Your task to perform on an android device: find snoozed emails in the gmail app Image 0: 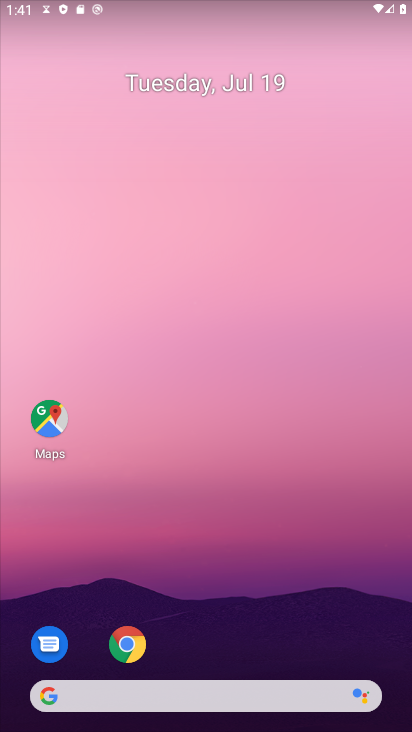
Step 0: drag from (255, 605) to (220, 511)
Your task to perform on an android device: find snoozed emails in the gmail app Image 1: 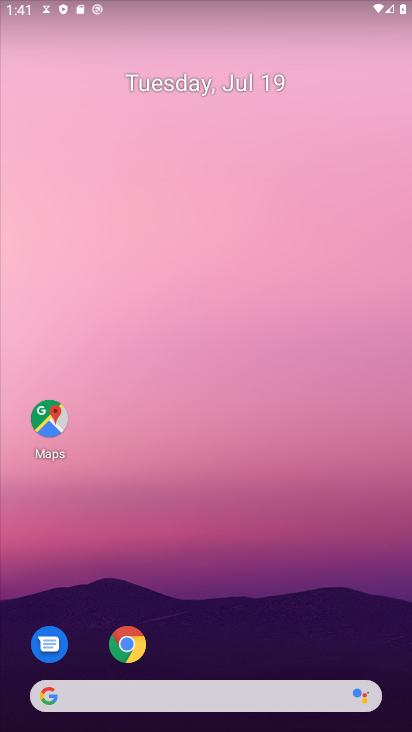
Step 1: drag from (242, 593) to (238, 246)
Your task to perform on an android device: find snoozed emails in the gmail app Image 2: 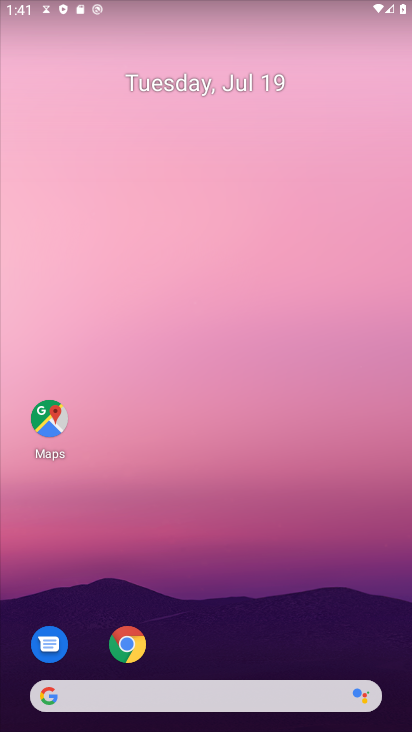
Step 2: drag from (276, 550) to (279, 239)
Your task to perform on an android device: find snoozed emails in the gmail app Image 3: 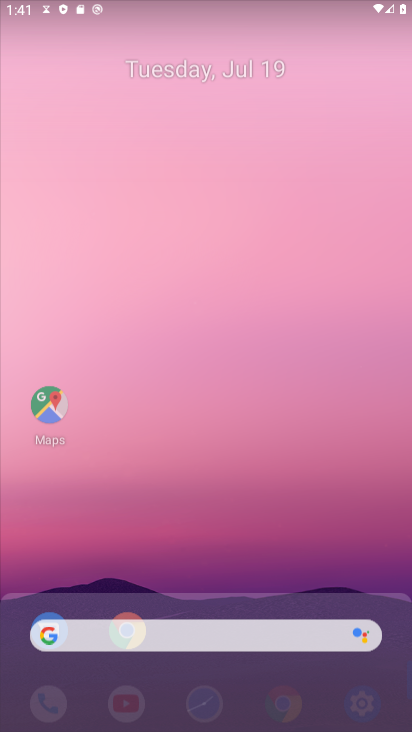
Step 3: drag from (250, 547) to (205, 93)
Your task to perform on an android device: find snoozed emails in the gmail app Image 4: 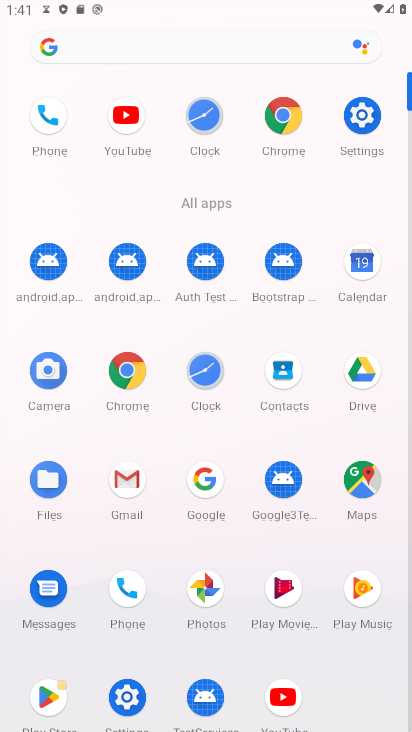
Step 4: drag from (227, 603) to (216, 310)
Your task to perform on an android device: find snoozed emails in the gmail app Image 5: 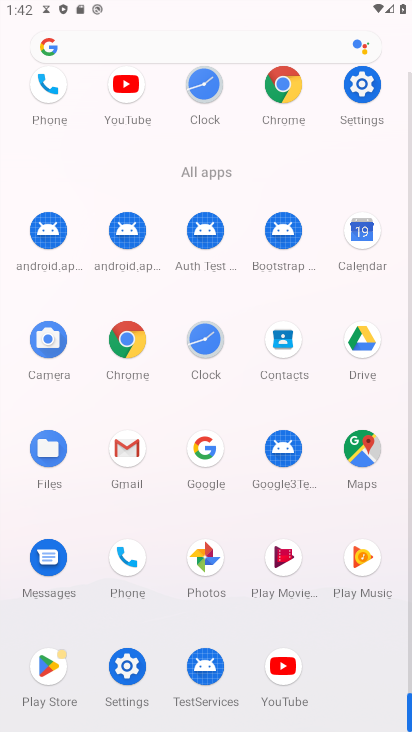
Step 5: click (116, 430)
Your task to perform on an android device: find snoozed emails in the gmail app Image 6: 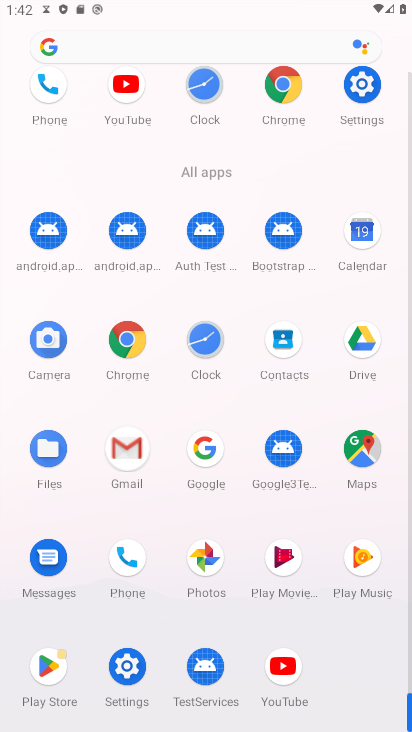
Step 6: click (125, 438)
Your task to perform on an android device: find snoozed emails in the gmail app Image 7: 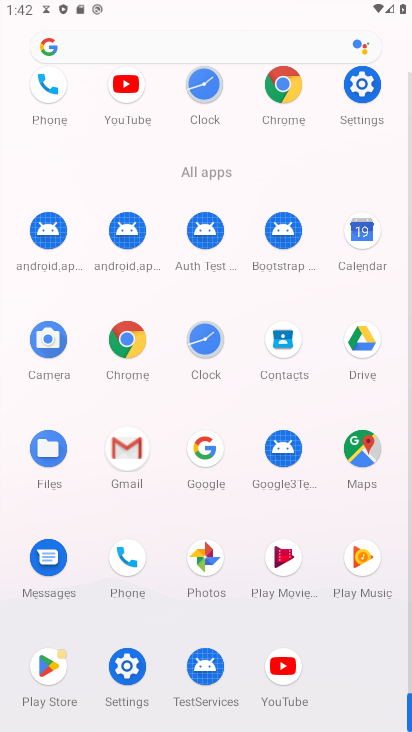
Step 7: click (125, 437)
Your task to perform on an android device: find snoozed emails in the gmail app Image 8: 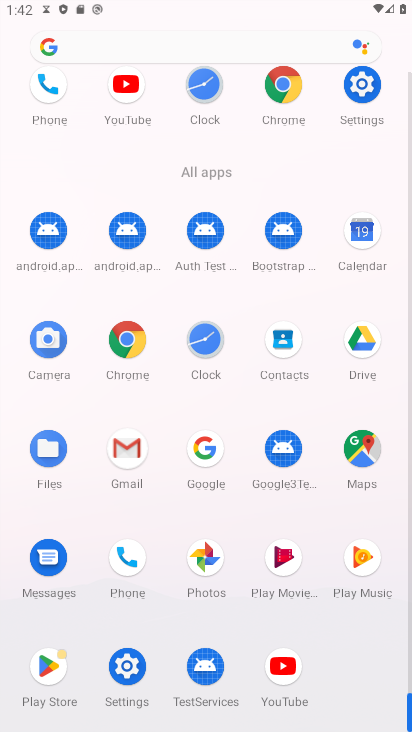
Step 8: click (126, 440)
Your task to perform on an android device: find snoozed emails in the gmail app Image 9: 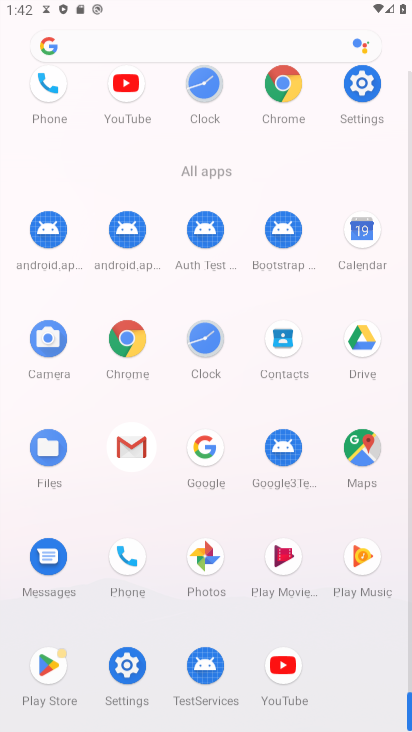
Step 9: click (128, 440)
Your task to perform on an android device: find snoozed emails in the gmail app Image 10: 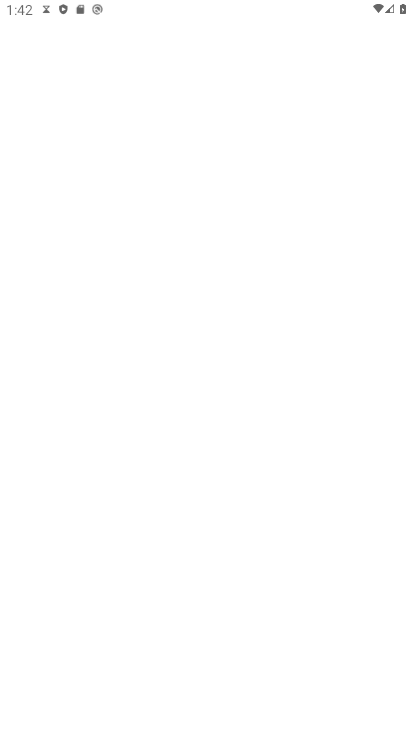
Step 10: click (132, 442)
Your task to perform on an android device: find snoozed emails in the gmail app Image 11: 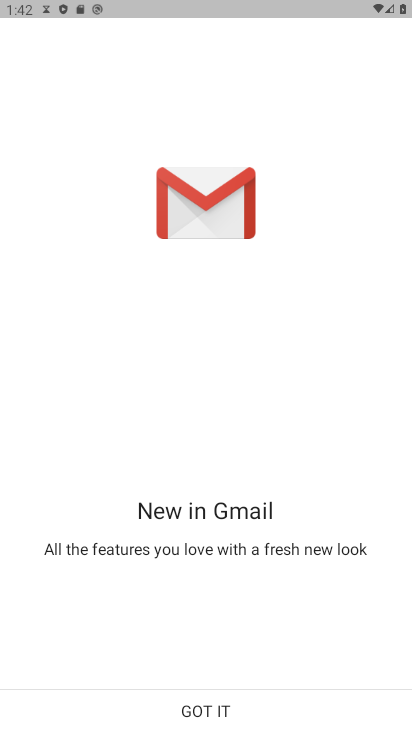
Step 11: click (130, 442)
Your task to perform on an android device: find snoozed emails in the gmail app Image 12: 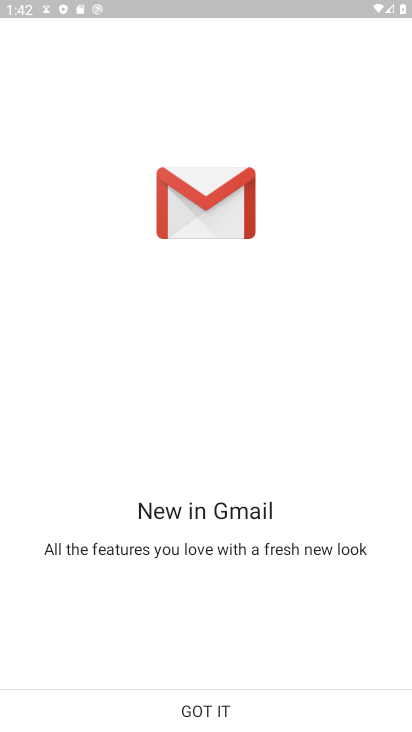
Step 12: click (215, 706)
Your task to perform on an android device: find snoozed emails in the gmail app Image 13: 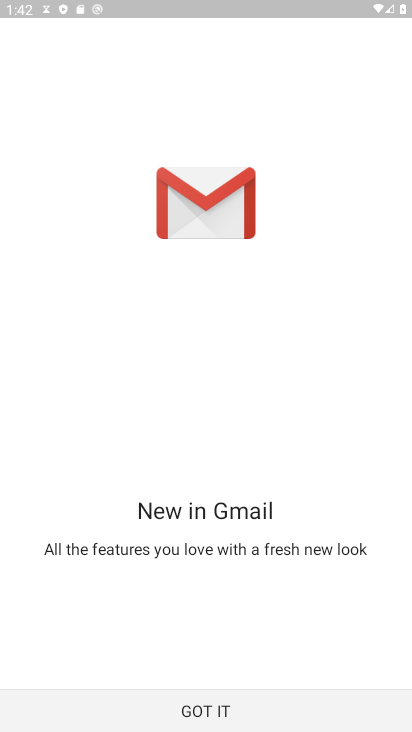
Step 13: click (215, 710)
Your task to perform on an android device: find snoozed emails in the gmail app Image 14: 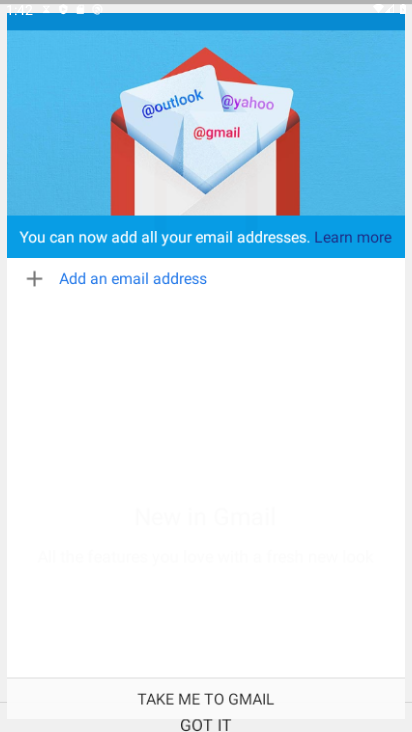
Step 14: click (215, 710)
Your task to perform on an android device: find snoozed emails in the gmail app Image 15: 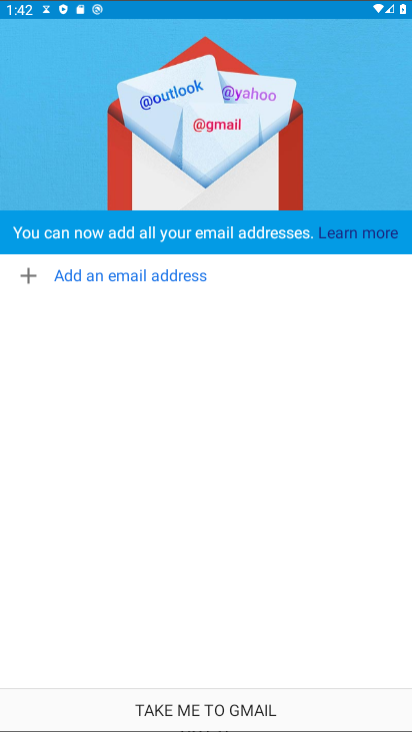
Step 15: click (215, 712)
Your task to perform on an android device: find snoozed emails in the gmail app Image 16: 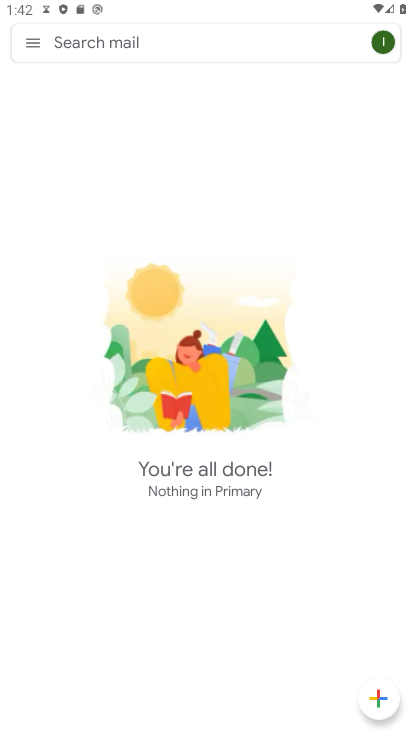
Step 16: click (25, 32)
Your task to perform on an android device: find snoozed emails in the gmail app Image 17: 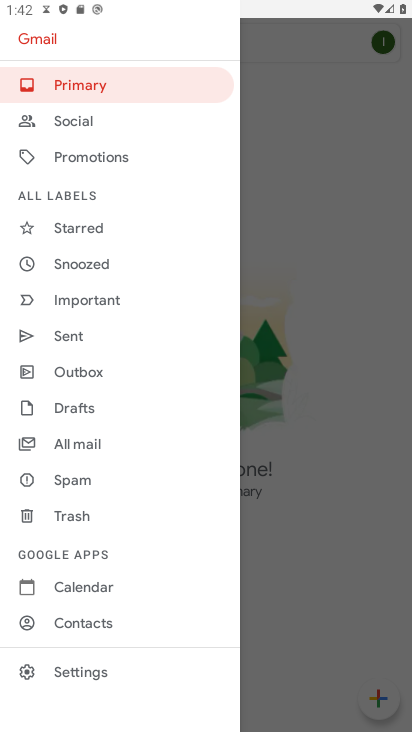
Step 17: click (75, 251)
Your task to perform on an android device: find snoozed emails in the gmail app Image 18: 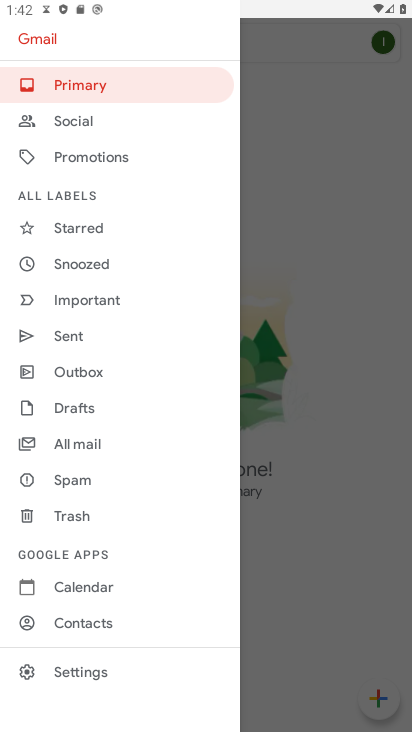
Step 18: click (78, 265)
Your task to perform on an android device: find snoozed emails in the gmail app Image 19: 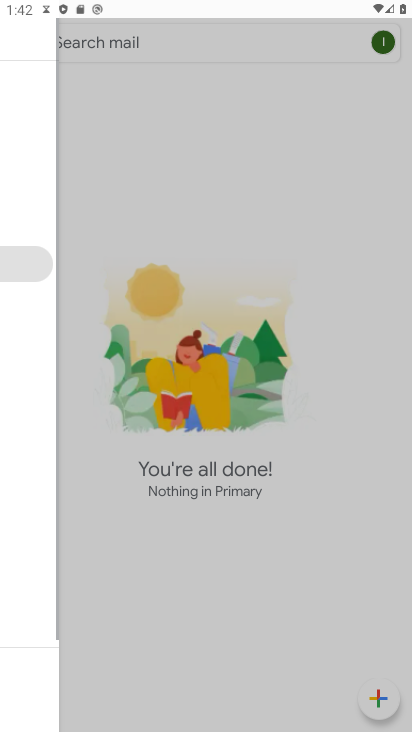
Step 19: click (80, 262)
Your task to perform on an android device: find snoozed emails in the gmail app Image 20: 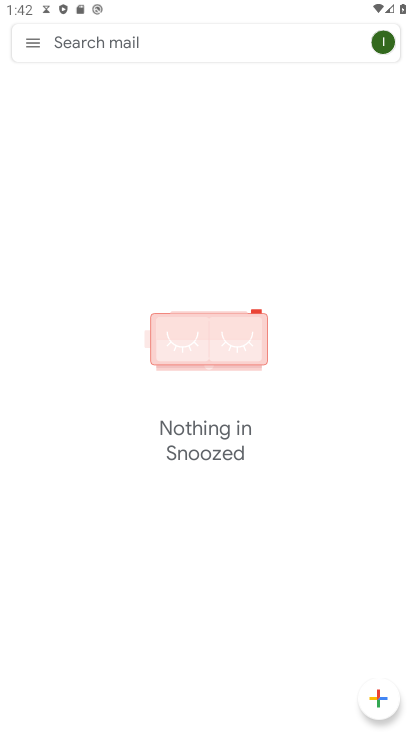
Step 20: task complete